Your task to perform on an android device: Go to Yahoo.com Image 0: 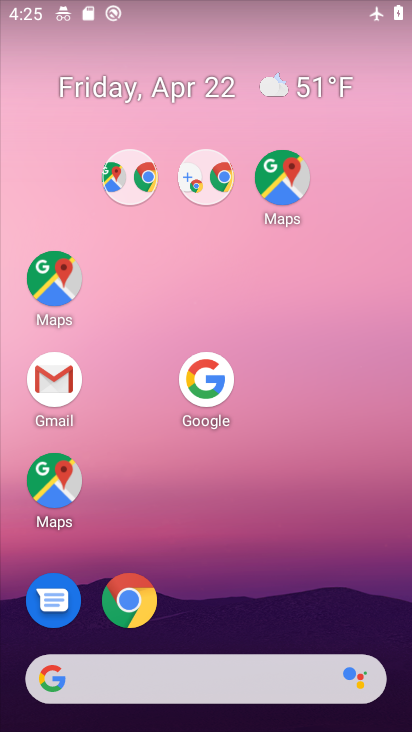
Step 0: drag from (302, 634) to (163, 147)
Your task to perform on an android device: Go to Yahoo.com Image 1: 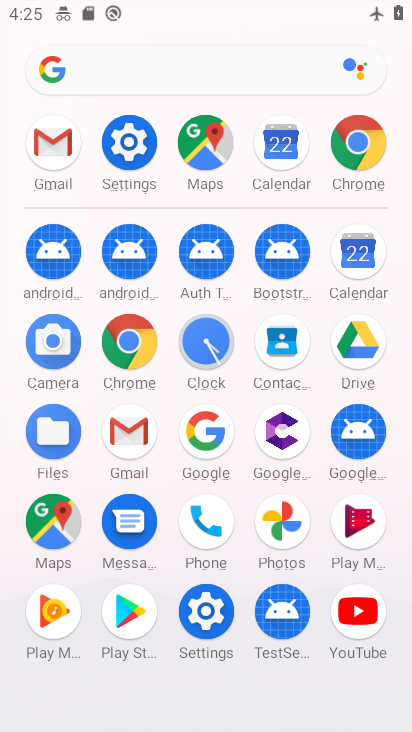
Step 1: click (350, 131)
Your task to perform on an android device: Go to Yahoo.com Image 2: 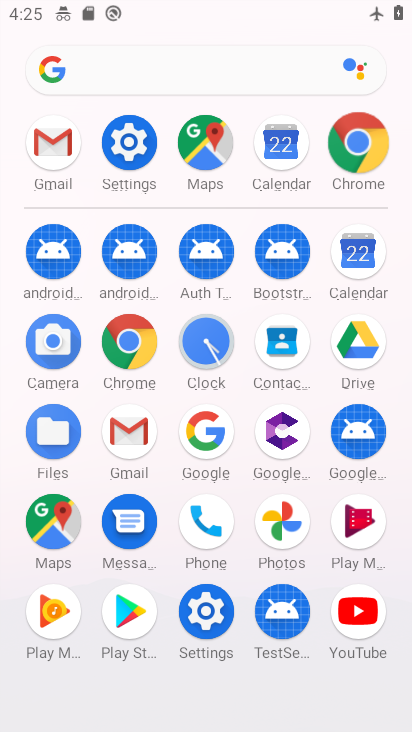
Step 2: click (356, 139)
Your task to perform on an android device: Go to Yahoo.com Image 3: 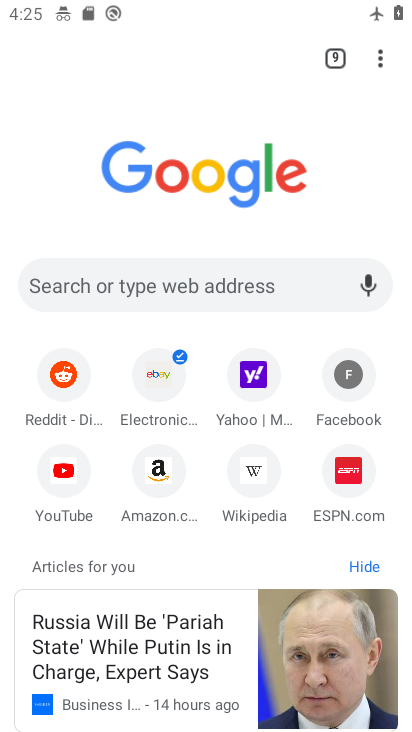
Step 3: click (263, 380)
Your task to perform on an android device: Go to Yahoo.com Image 4: 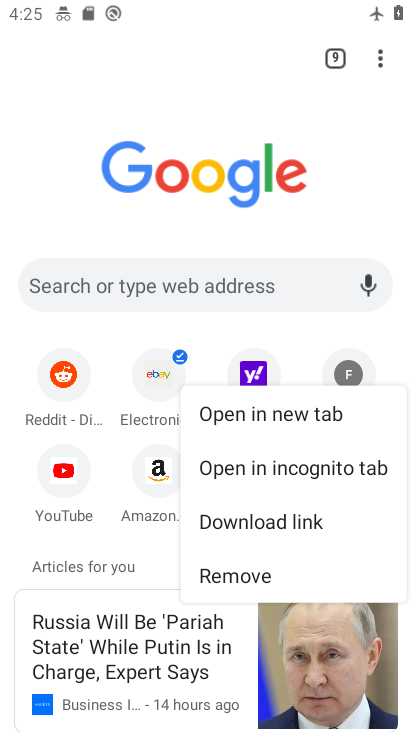
Step 4: click (263, 379)
Your task to perform on an android device: Go to Yahoo.com Image 5: 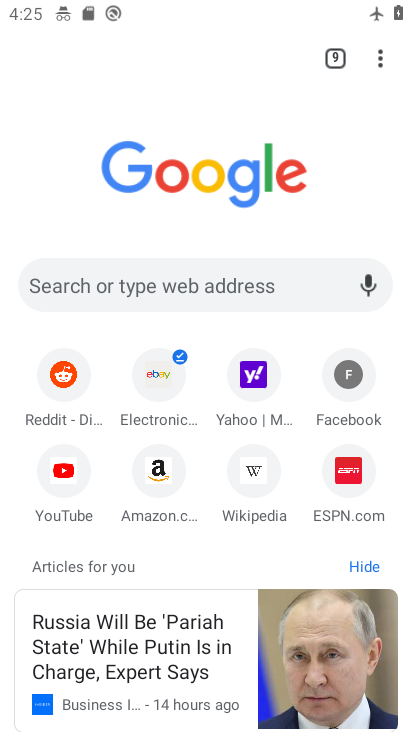
Step 5: click (260, 378)
Your task to perform on an android device: Go to Yahoo.com Image 6: 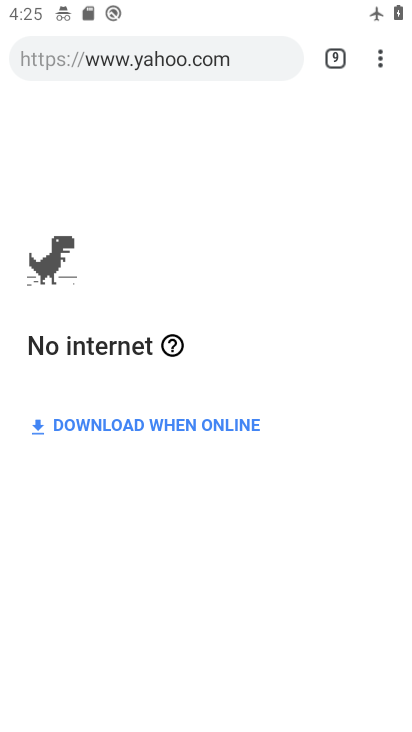
Step 6: task complete